Your task to perform on an android device: Open calendar and show me the fourth week of next month Image 0: 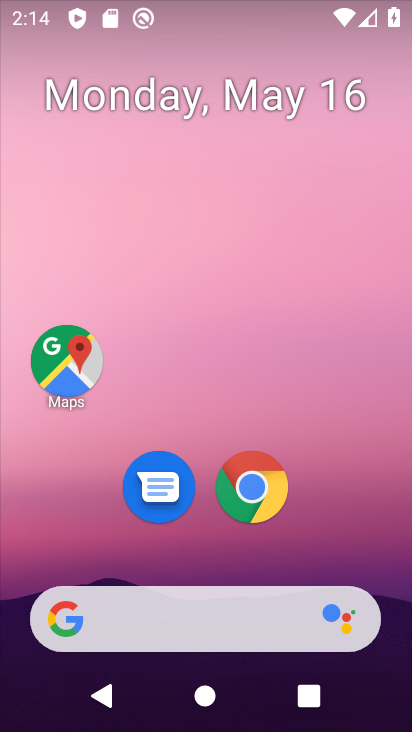
Step 0: drag from (321, 498) to (276, 134)
Your task to perform on an android device: Open calendar and show me the fourth week of next month Image 1: 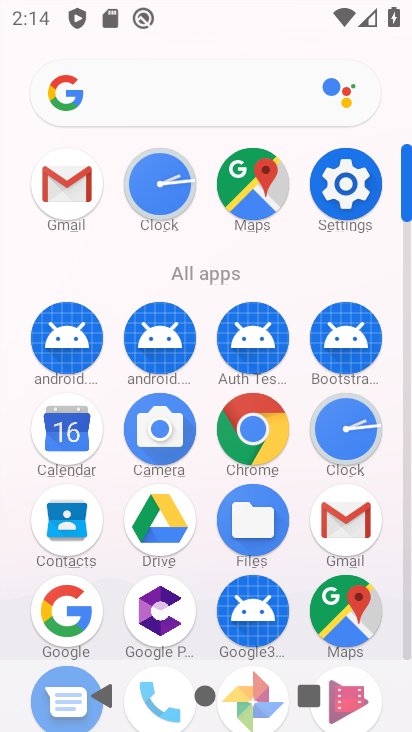
Step 1: click (67, 433)
Your task to perform on an android device: Open calendar and show me the fourth week of next month Image 2: 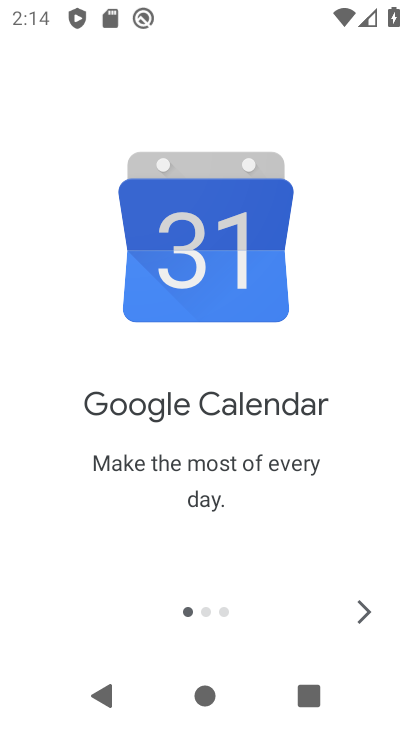
Step 2: click (365, 609)
Your task to perform on an android device: Open calendar and show me the fourth week of next month Image 3: 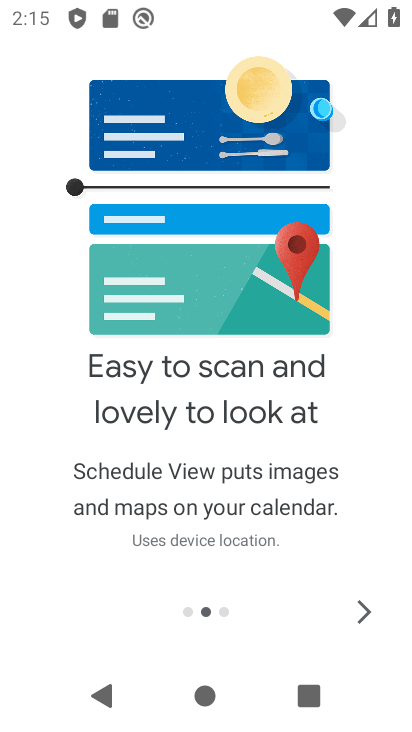
Step 3: click (365, 609)
Your task to perform on an android device: Open calendar and show me the fourth week of next month Image 4: 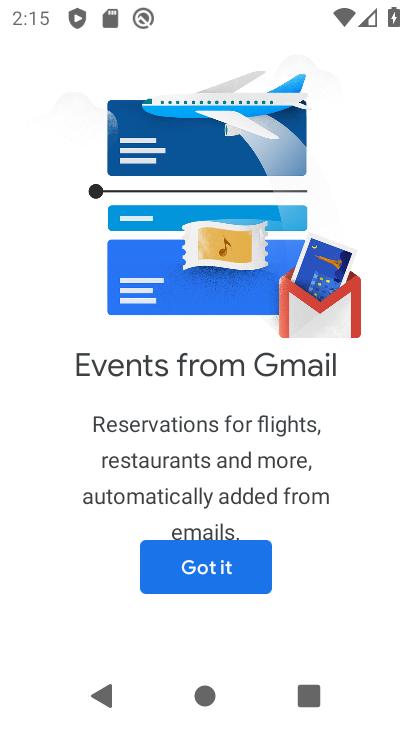
Step 4: click (205, 575)
Your task to perform on an android device: Open calendar and show me the fourth week of next month Image 5: 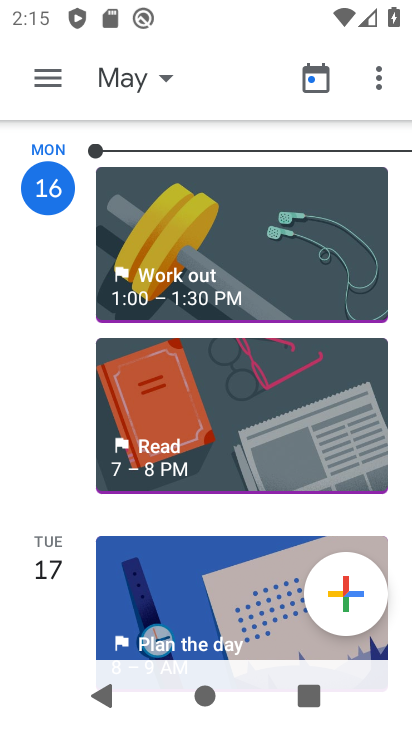
Step 5: click (167, 74)
Your task to perform on an android device: Open calendar and show me the fourth week of next month Image 6: 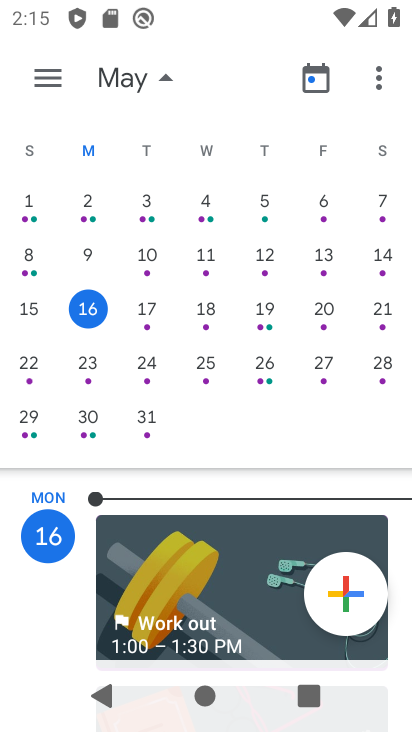
Step 6: drag from (356, 329) to (106, 233)
Your task to perform on an android device: Open calendar and show me the fourth week of next month Image 7: 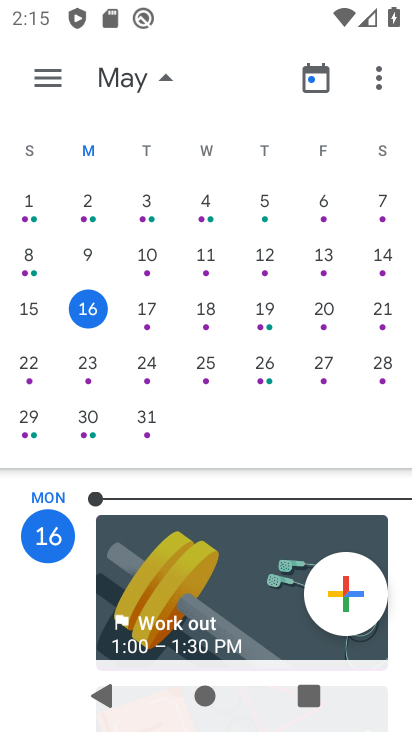
Step 7: drag from (357, 286) to (0, 353)
Your task to perform on an android device: Open calendar and show me the fourth week of next month Image 8: 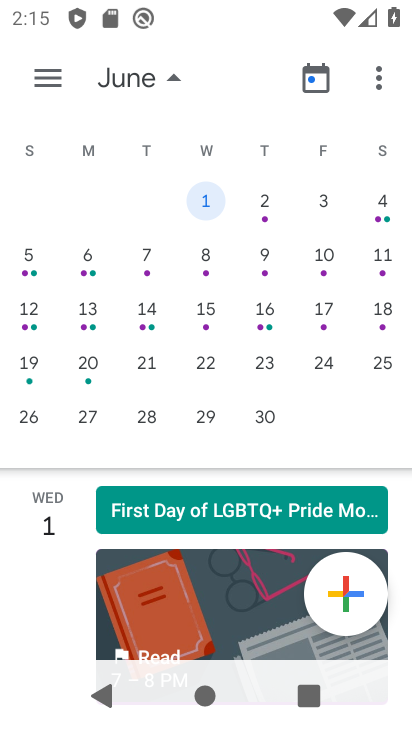
Step 8: click (85, 415)
Your task to perform on an android device: Open calendar and show me the fourth week of next month Image 9: 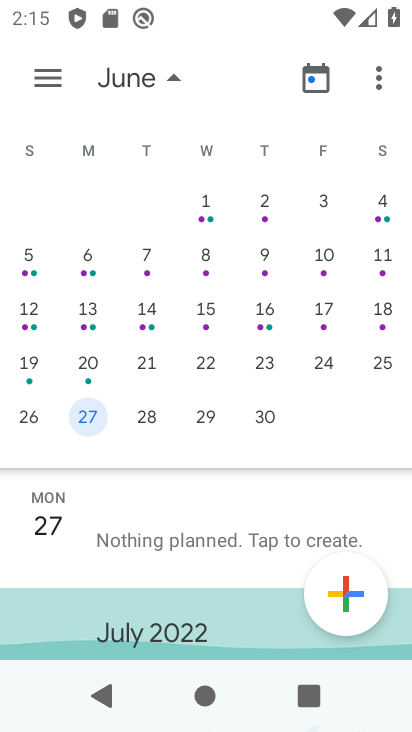
Step 9: click (48, 86)
Your task to perform on an android device: Open calendar and show me the fourth week of next month Image 10: 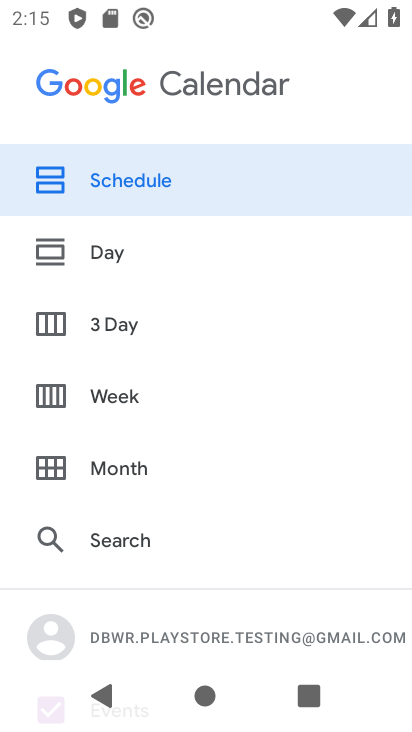
Step 10: click (127, 390)
Your task to perform on an android device: Open calendar and show me the fourth week of next month Image 11: 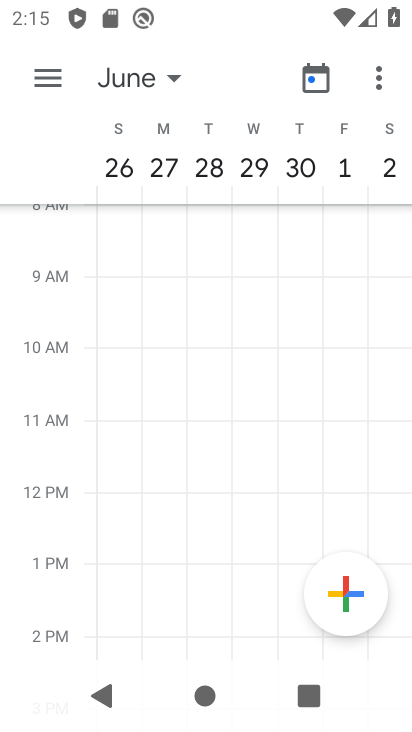
Step 11: task complete